Your task to perform on an android device: Show me productivity apps on the Play Store Image 0: 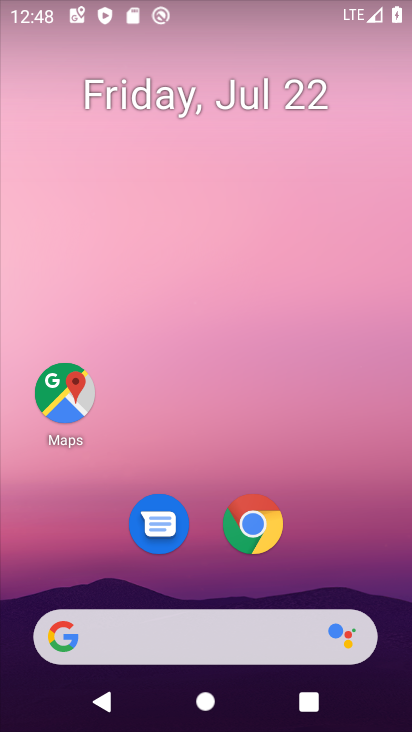
Step 0: drag from (324, 544) to (304, 111)
Your task to perform on an android device: Show me productivity apps on the Play Store Image 1: 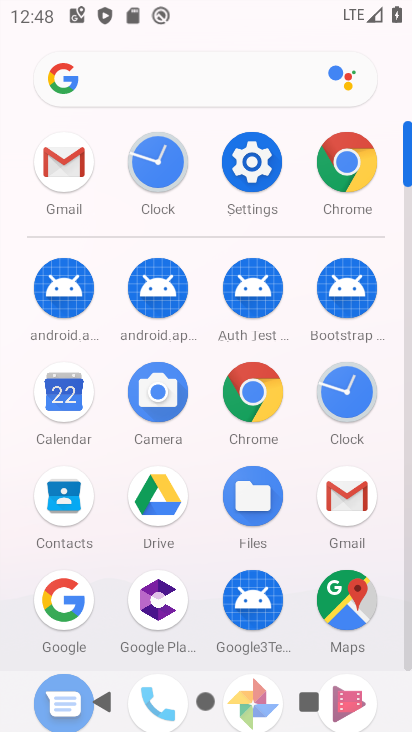
Step 1: drag from (201, 536) to (196, 148)
Your task to perform on an android device: Show me productivity apps on the Play Store Image 2: 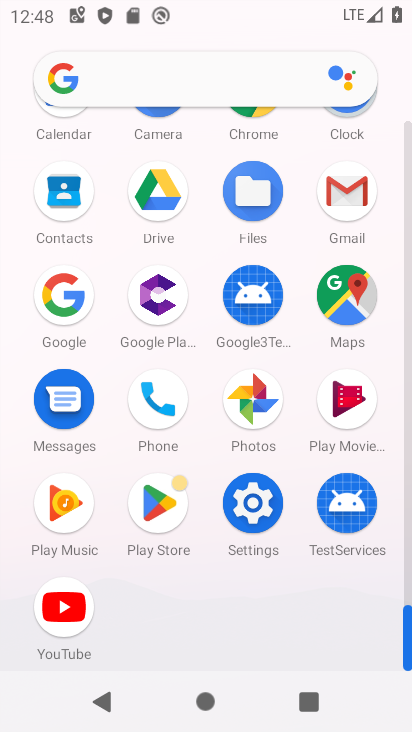
Step 2: click (164, 503)
Your task to perform on an android device: Show me productivity apps on the Play Store Image 3: 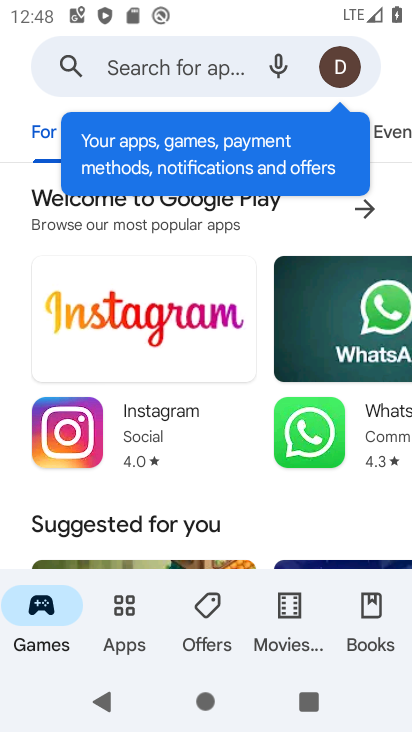
Step 3: click (122, 612)
Your task to perform on an android device: Show me productivity apps on the Play Store Image 4: 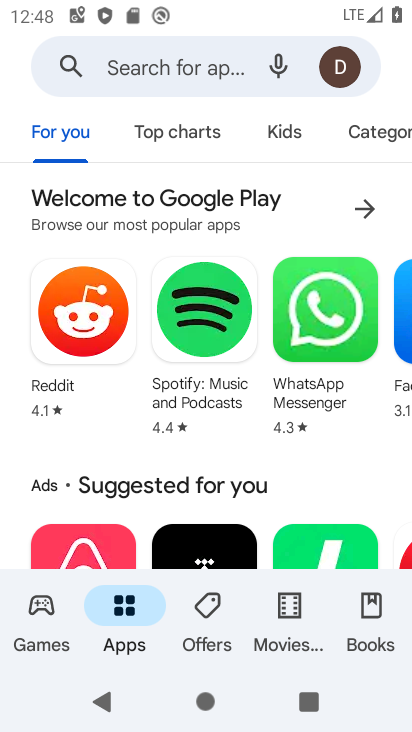
Step 4: click (366, 134)
Your task to perform on an android device: Show me productivity apps on the Play Store Image 5: 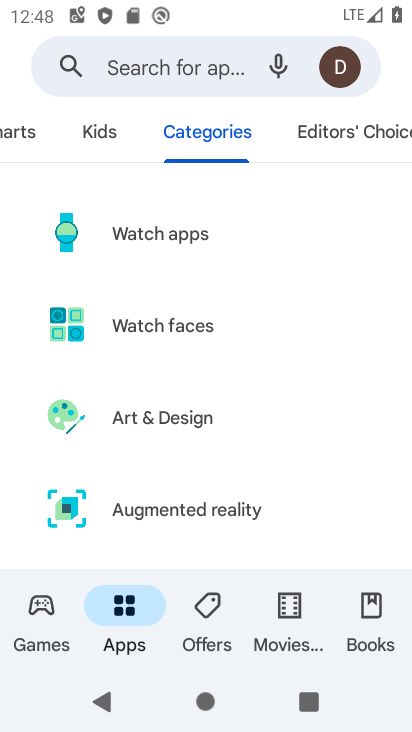
Step 5: drag from (285, 501) to (318, 92)
Your task to perform on an android device: Show me productivity apps on the Play Store Image 6: 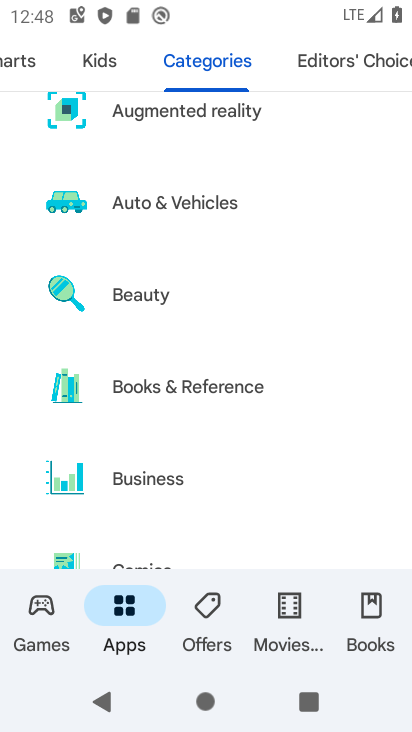
Step 6: drag from (281, 498) to (314, 97)
Your task to perform on an android device: Show me productivity apps on the Play Store Image 7: 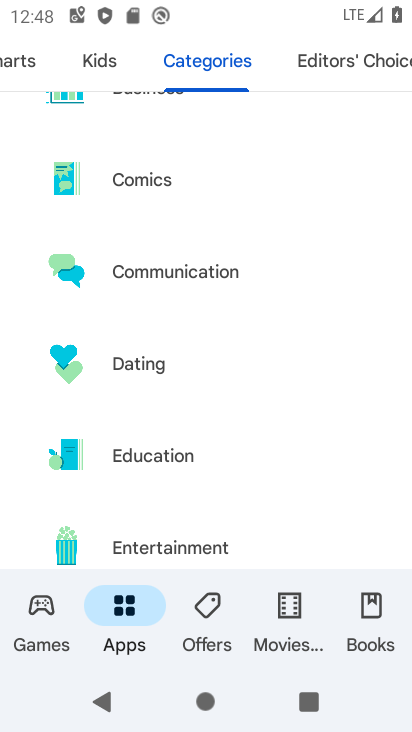
Step 7: drag from (267, 508) to (306, 99)
Your task to perform on an android device: Show me productivity apps on the Play Store Image 8: 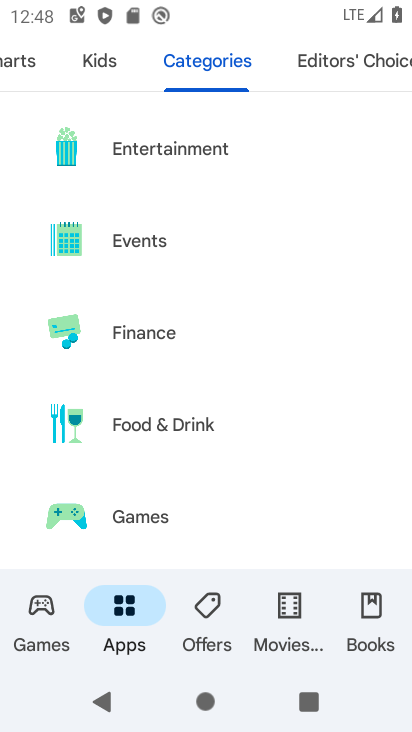
Step 8: drag from (255, 518) to (298, 92)
Your task to perform on an android device: Show me productivity apps on the Play Store Image 9: 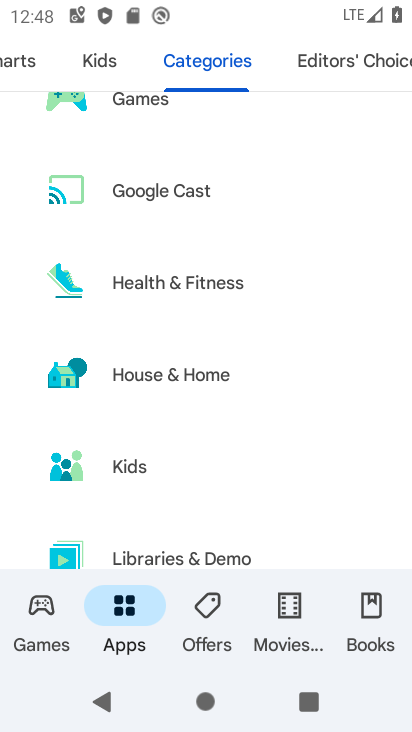
Step 9: drag from (268, 503) to (316, 123)
Your task to perform on an android device: Show me productivity apps on the Play Store Image 10: 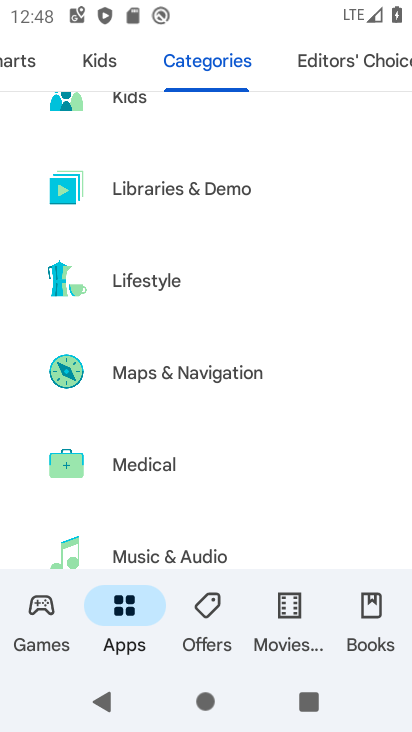
Step 10: drag from (260, 493) to (306, 112)
Your task to perform on an android device: Show me productivity apps on the Play Store Image 11: 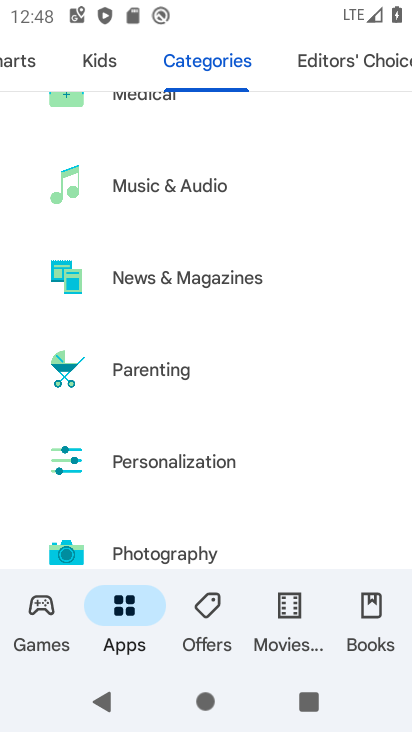
Step 11: drag from (259, 428) to (291, 112)
Your task to perform on an android device: Show me productivity apps on the Play Store Image 12: 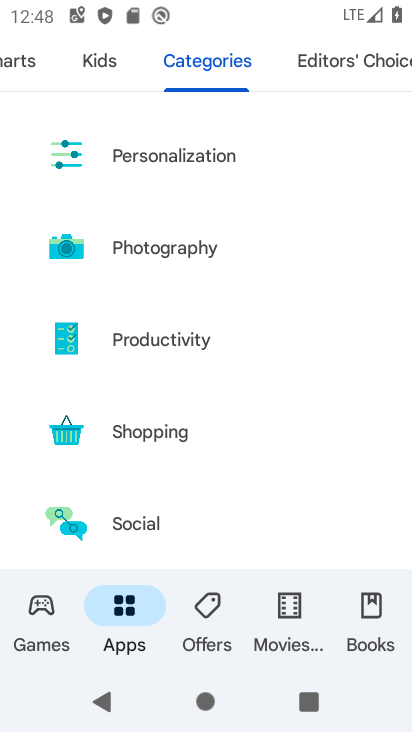
Step 12: click (194, 338)
Your task to perform on an android device: Show me productivity apps on the Play Store Image 13: 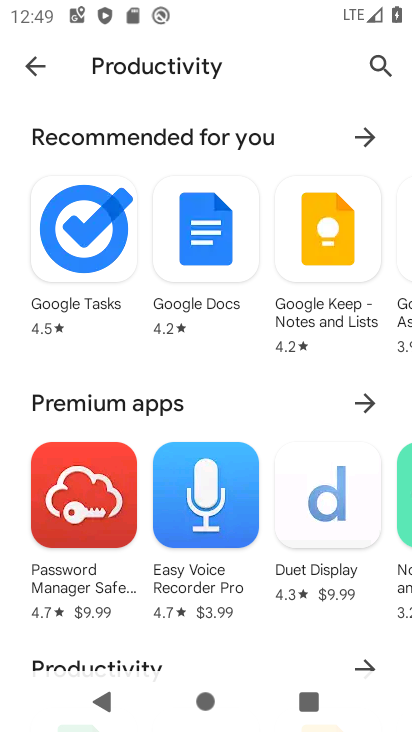
Step 13: drag from (291, 572) to (311, 323)
Your task to perform on an android device: Show me productivity apps on the Play Store Image 14: 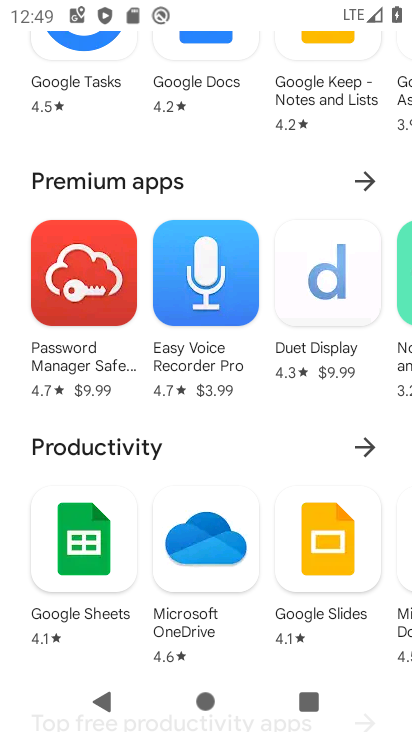
Step 14: click (360, 441)
Your task to perform on an android device: Show me productivity apps on the Play Store Image 15: 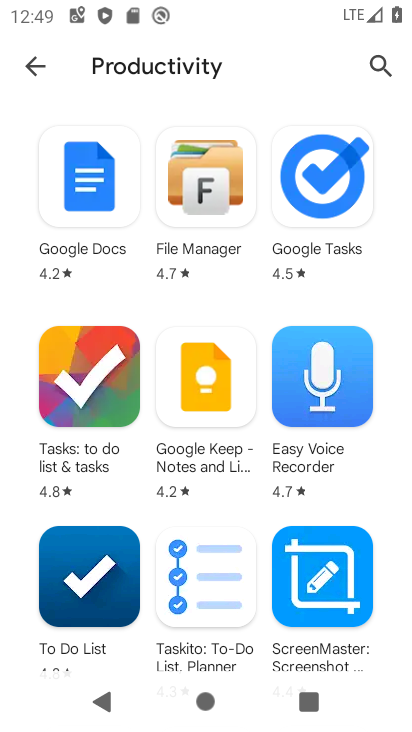
Step 15: task complete